Your task to perform on an android device: check data usage Image 0: 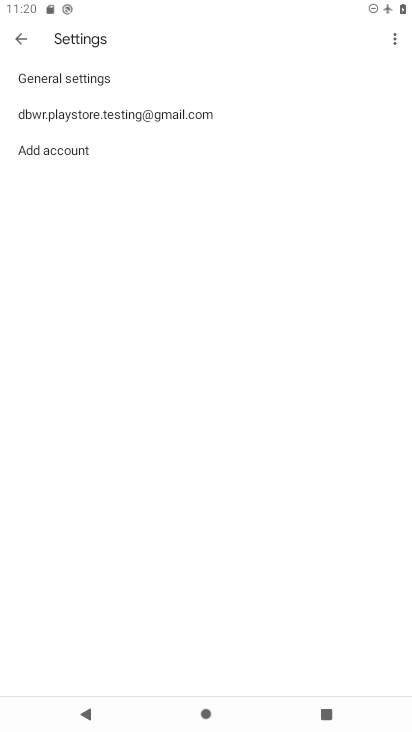
Step 0: press home button
Your task to perform on an android device: check data usage Image 1: 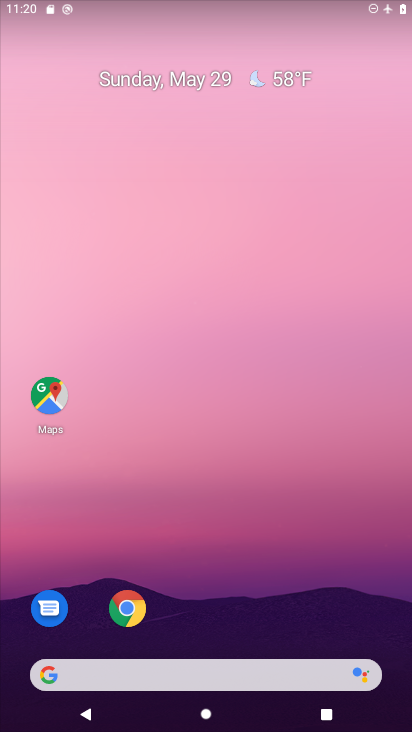
Step 1: drag from (239, 609) to (237, 92)
Your task to perform on an android device: check data usage Image 2: 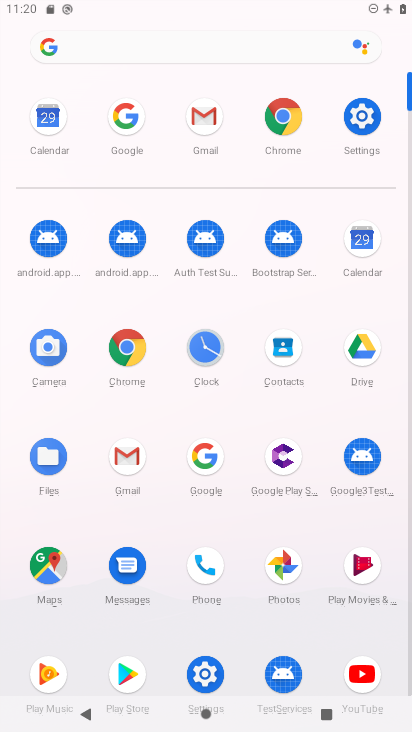
Step 2: click (357, 114)
Your task to perform on an android device: check data usage Image 3: 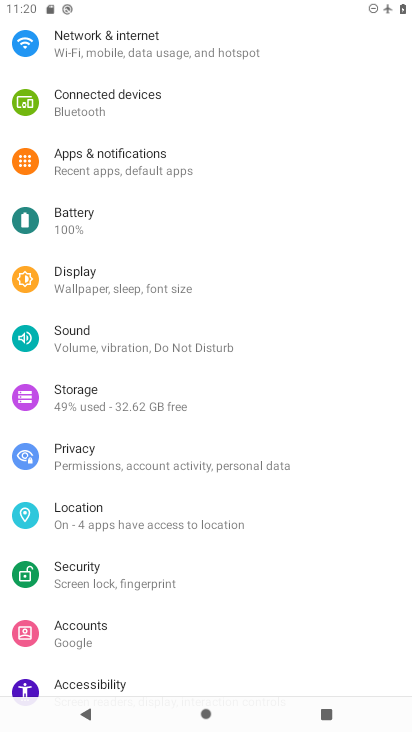
Step 3: click (159, 49)
Your task to perform on an android device: check data usage Image 4: 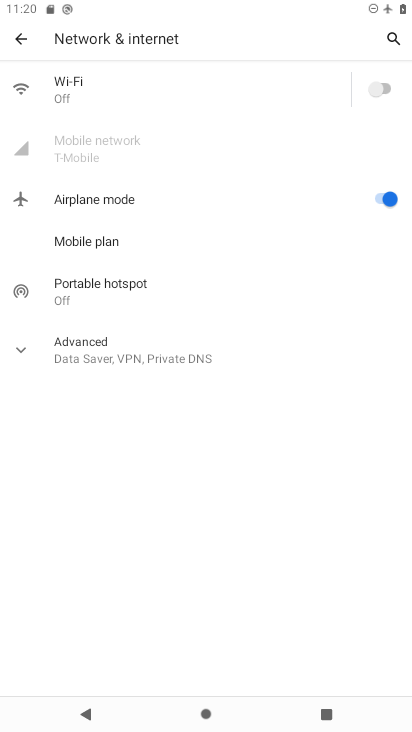
Step 4: click (93, 154)
Your task to perform on an android device: check data usage Image 5: 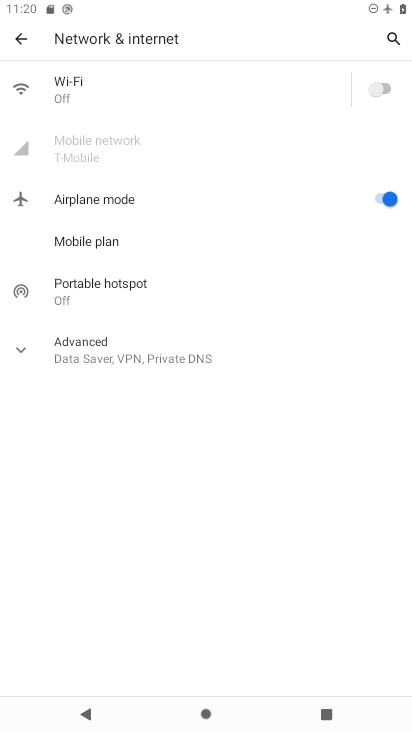
Step 5: click (382, 204)
Your task to perform on an android device: check data usage Image 6: 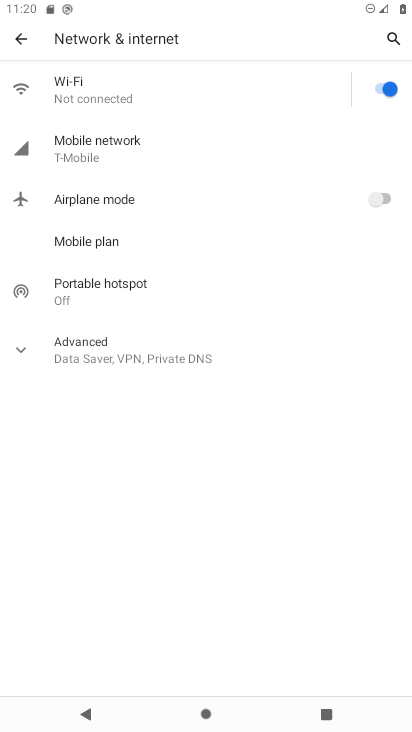
Step 6: click (86, 158)
Your task to perform on an android device: check data usage Image 7: 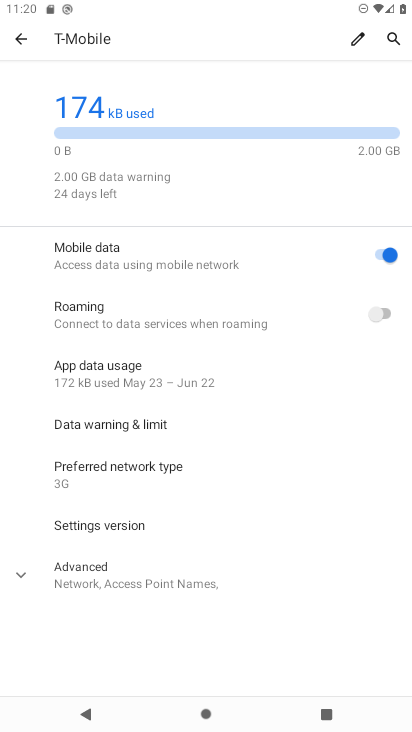
Step 7: task complete